Your task to perform on an android device: change the clock display to show seconds Image 0: 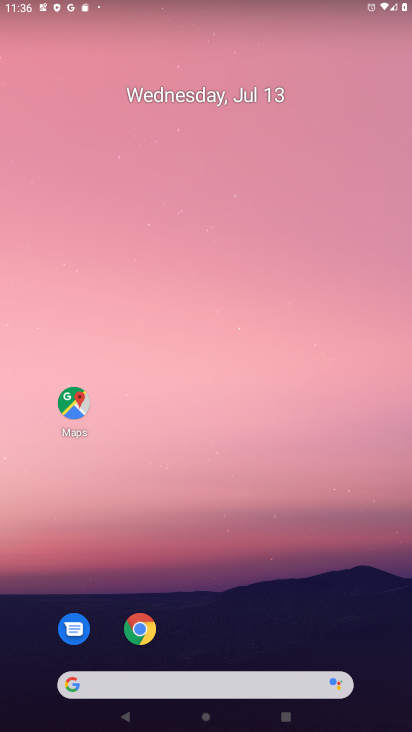
Step 0: drag from (290, 634) to (292, 103)
Your task to perform on an android device: change the clock display to show seconds Image 1: 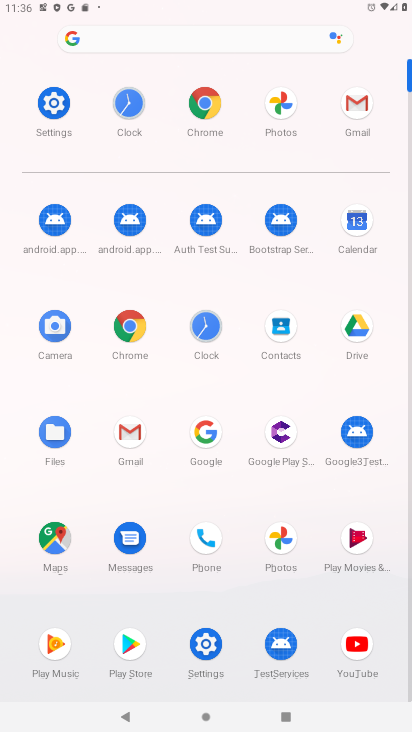
Step 1: click (122, 99)
Your task to perform on an android device: change the clock display to show seconds Image 2: 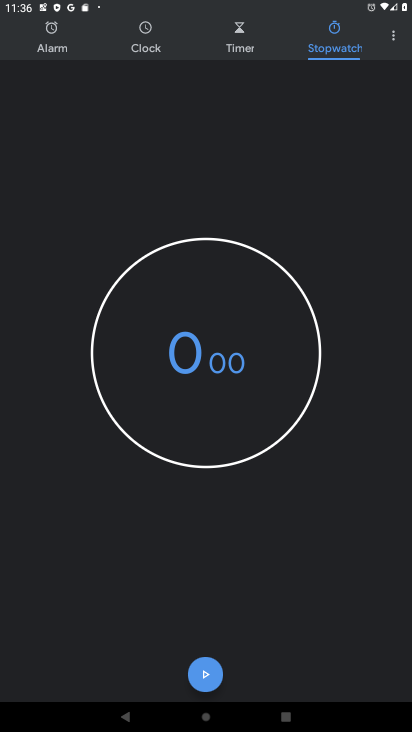
Step 2: click (400, 44)
Your task to perform on an android device: change the clock display to show seconds Image 3: 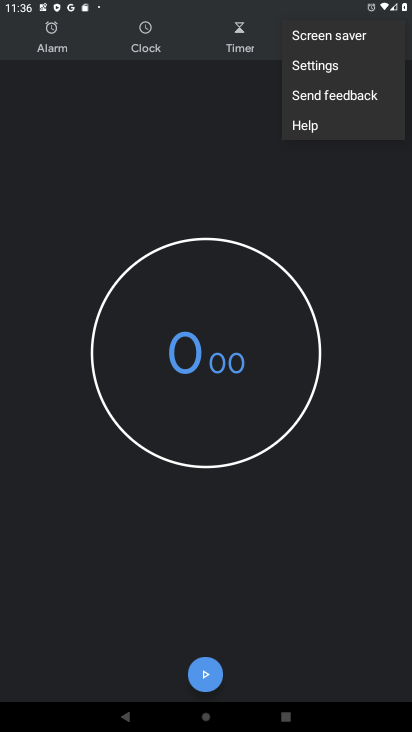
Step 3: click (324, 55)
Your task to perform on an android device: change the clock display to show seconds Image 4: 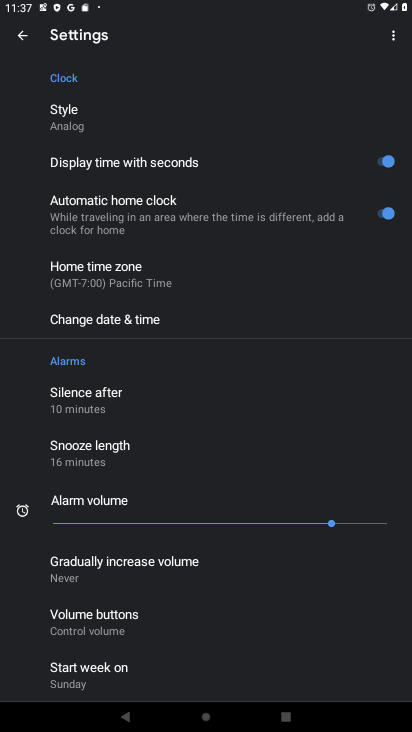
Step 4: task complete